Your task to perform on an android device: toggle location history Image 0: 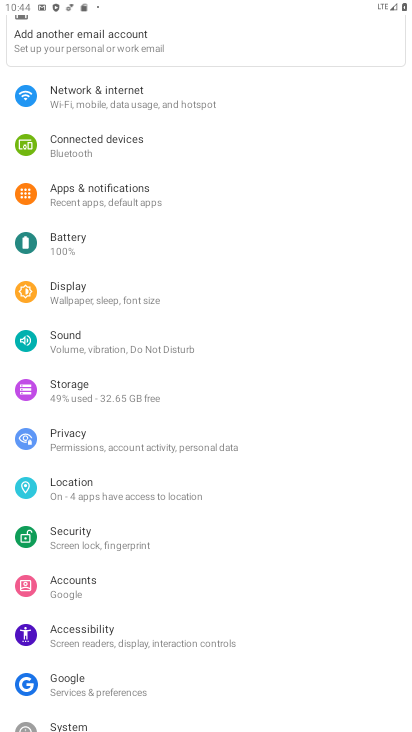
Step 0: press home button
Your task to perform on an android device: toggle location history Image 1: 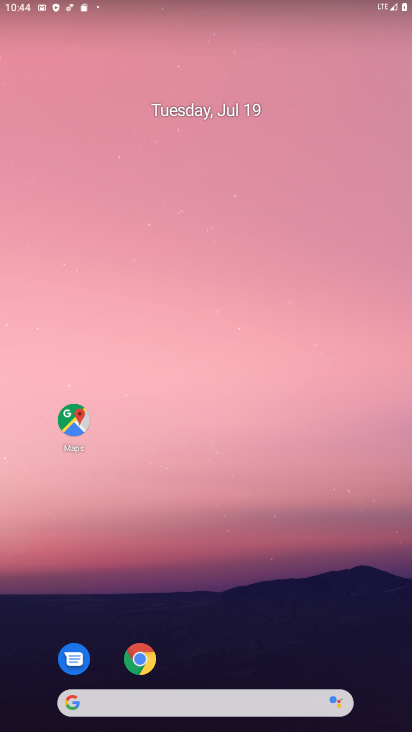
Step 1: click (146, 658)
Your task to perform on an android device: toggle location history Image 2: 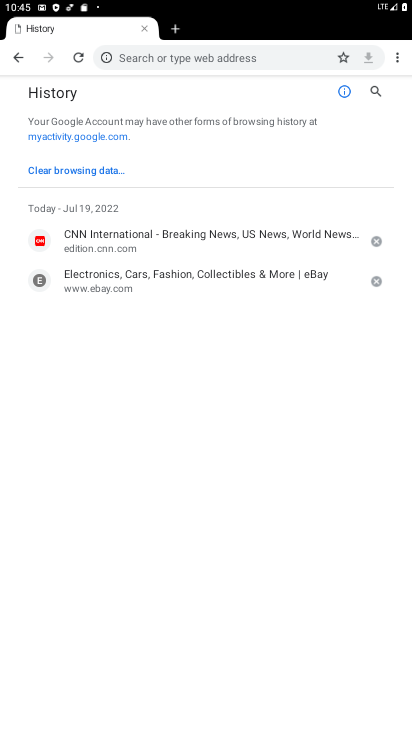
Step 2: task complete